Your task to perform on an android device: toggle show notifications on the lock screen Image 0: 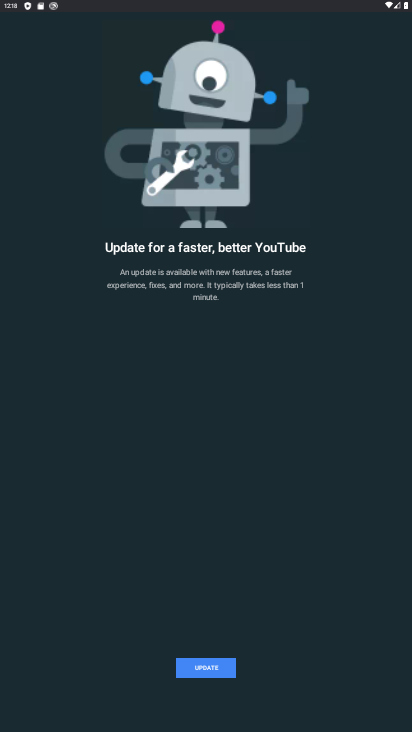
Step 0: press home button
Your task to perform on an android device: toggle show notifications on the lock screen Image 1: 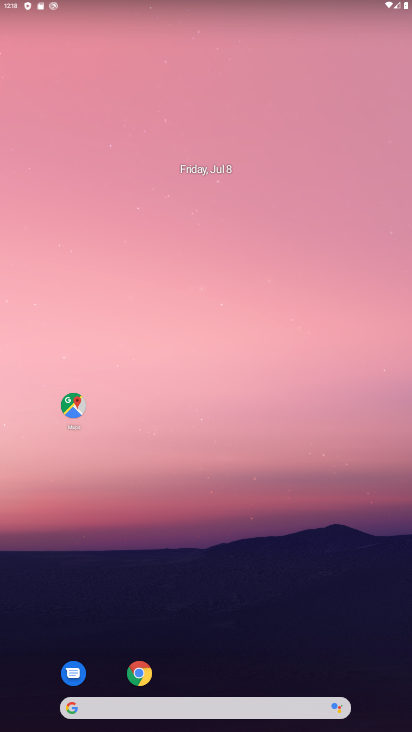
Step 1: drag from (201, 659) to (243, 146)
Your task to perform on an android device: toggle show notifications on the lock screen Image 2: 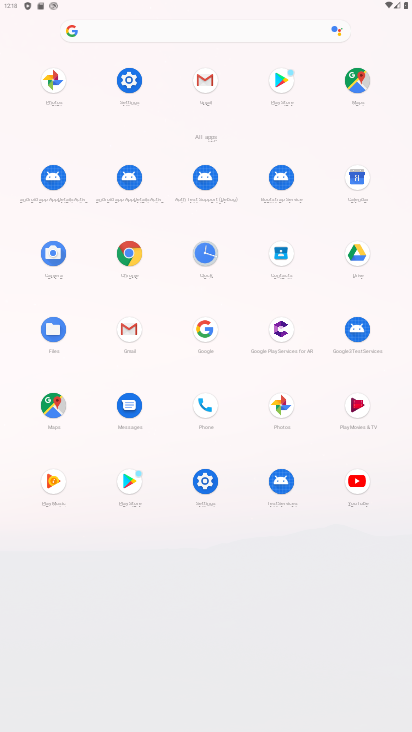
Step 2: click (204, 478)
Your task to perform on an android device: toggle show notifications on the lock screen Image 3: 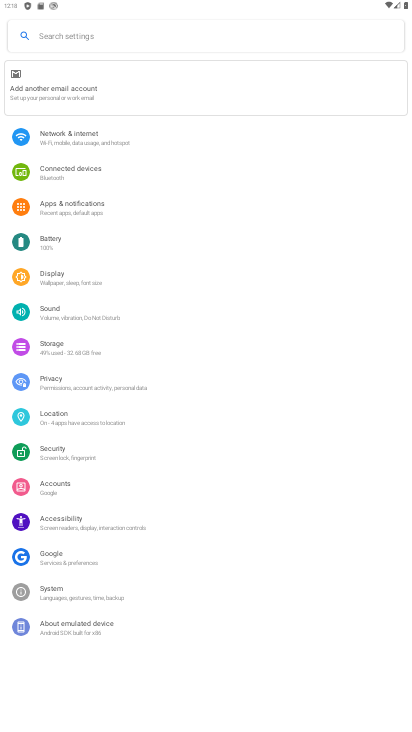
Step 3: click (91, 207)
Your task to perform on an android device: toggle show notifications on the lock screen Image 4: 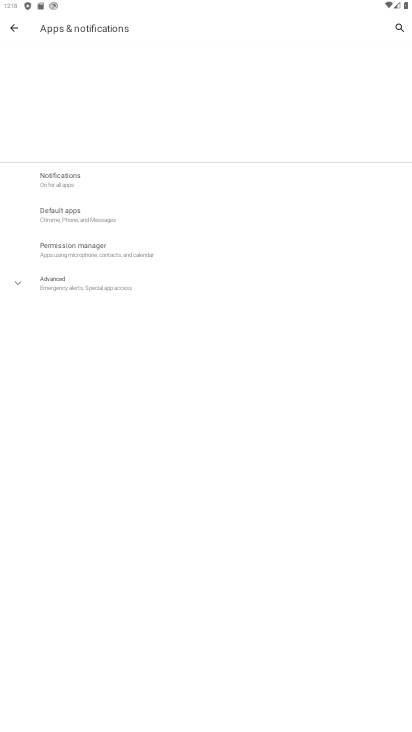
Step 4: click (79, 181)
Your task to perform on an android device: toggle show notifications on the lock screen Image 5: 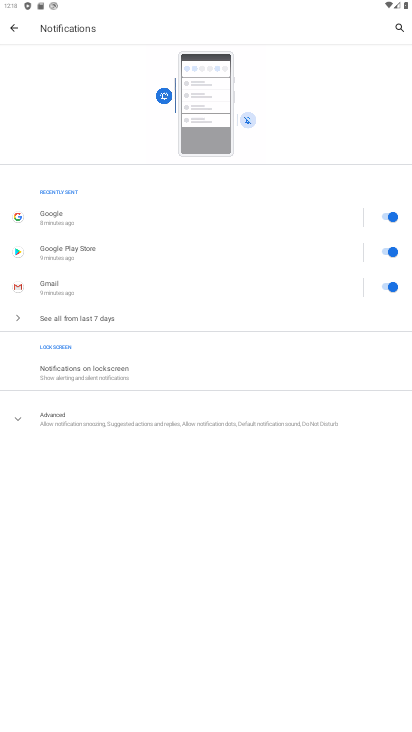
Step 5: click (77, 373)
Your task to perform on an android device: toggle show notifications on the lock screen Image 6: 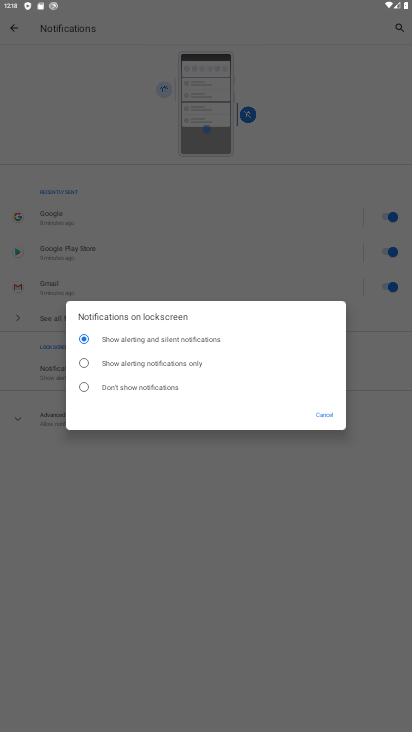
Step 6: click (84, 389)
Your task to perform on an android device: toggle show notifications on the lock screen Image 7: 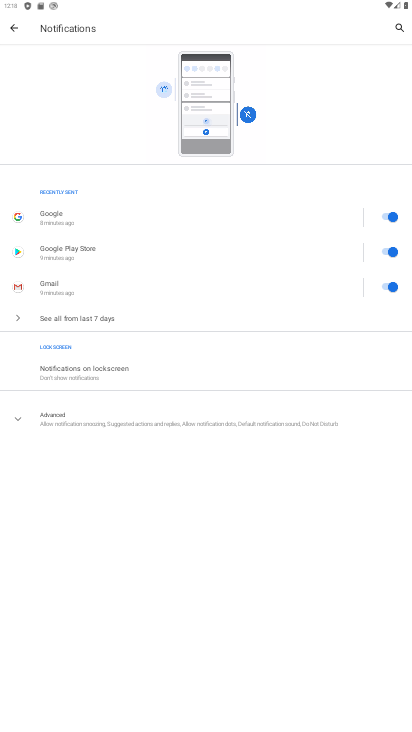
Step 7: task complete